Your task to perform on an android device: change your default location settings in chrome Image 0: 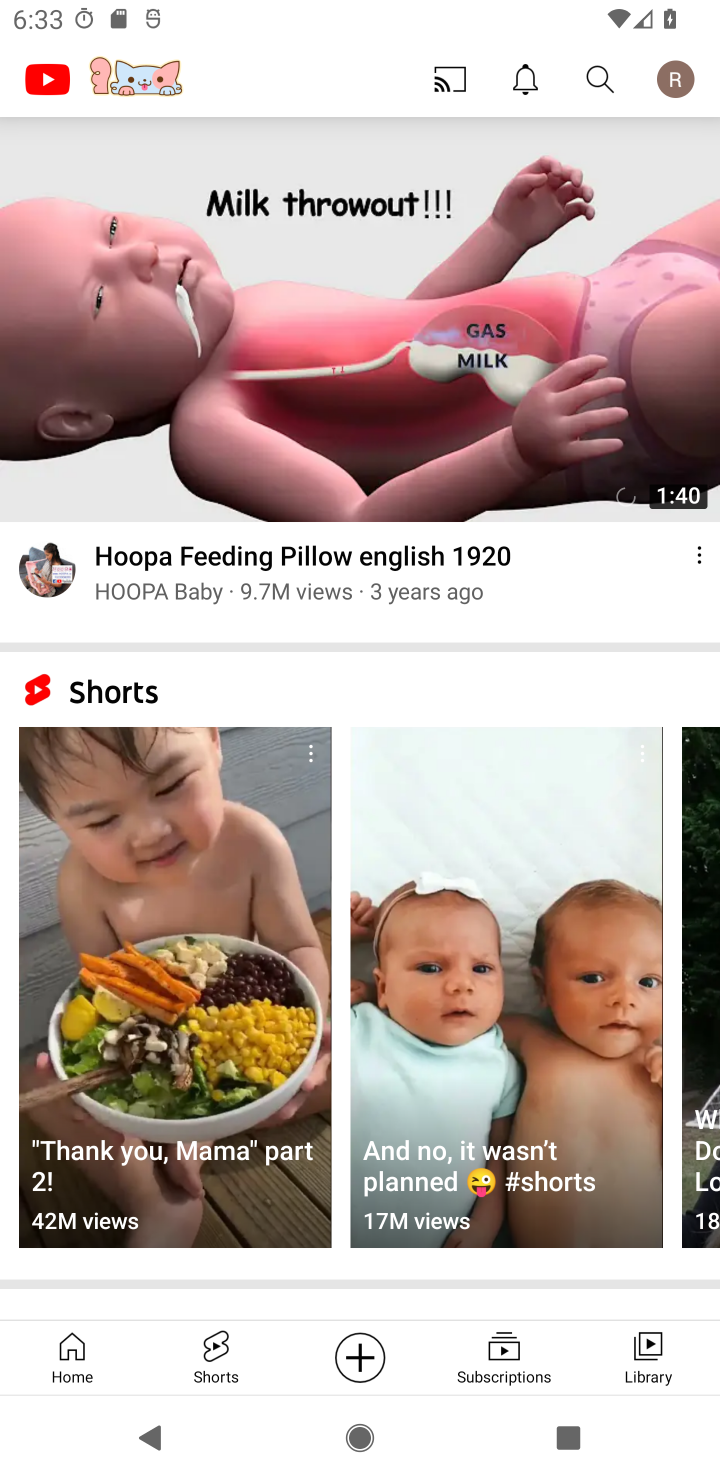
Step 0: press home button
Your task to perform on an android device: change your default location settings in chrome Image 1: 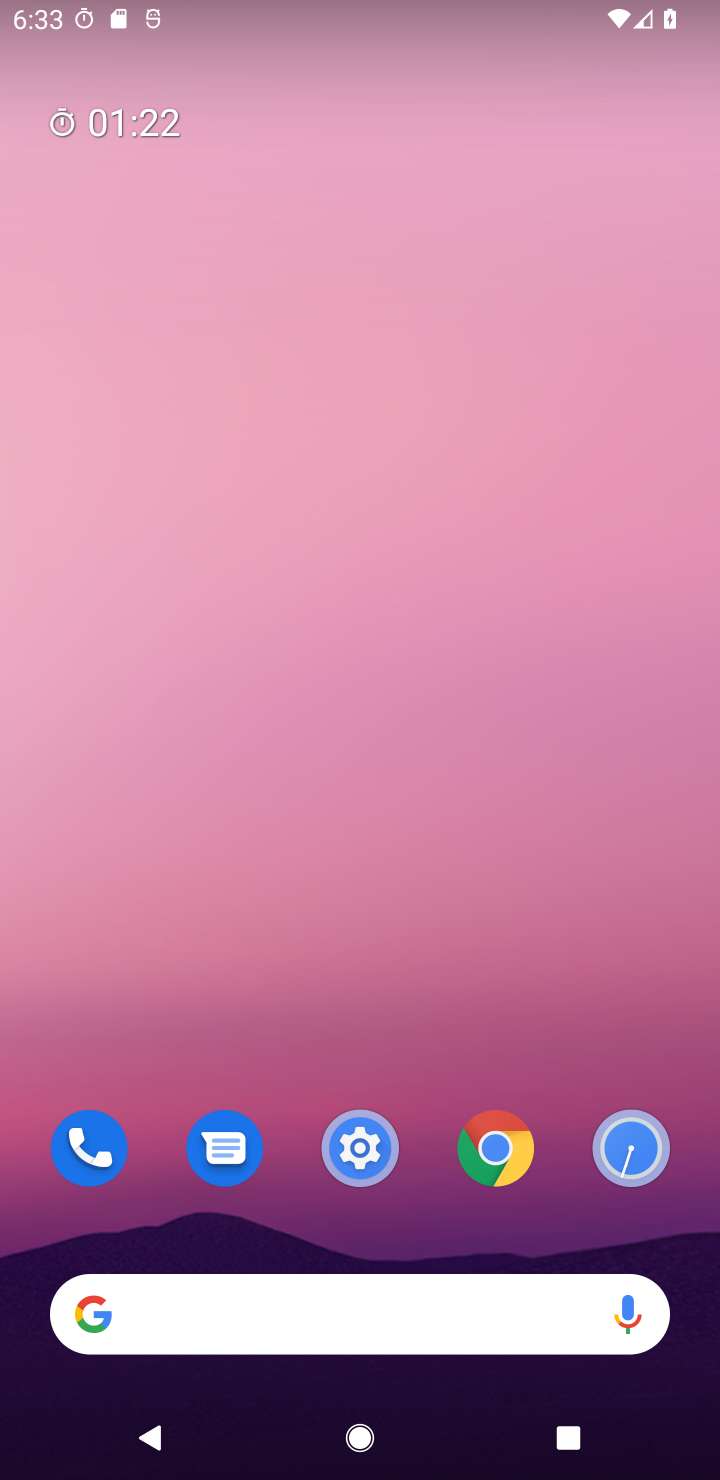
Step 1: click (486, 1188)
Your task to perform on an android device: change your default location settings in chrome Image 2: 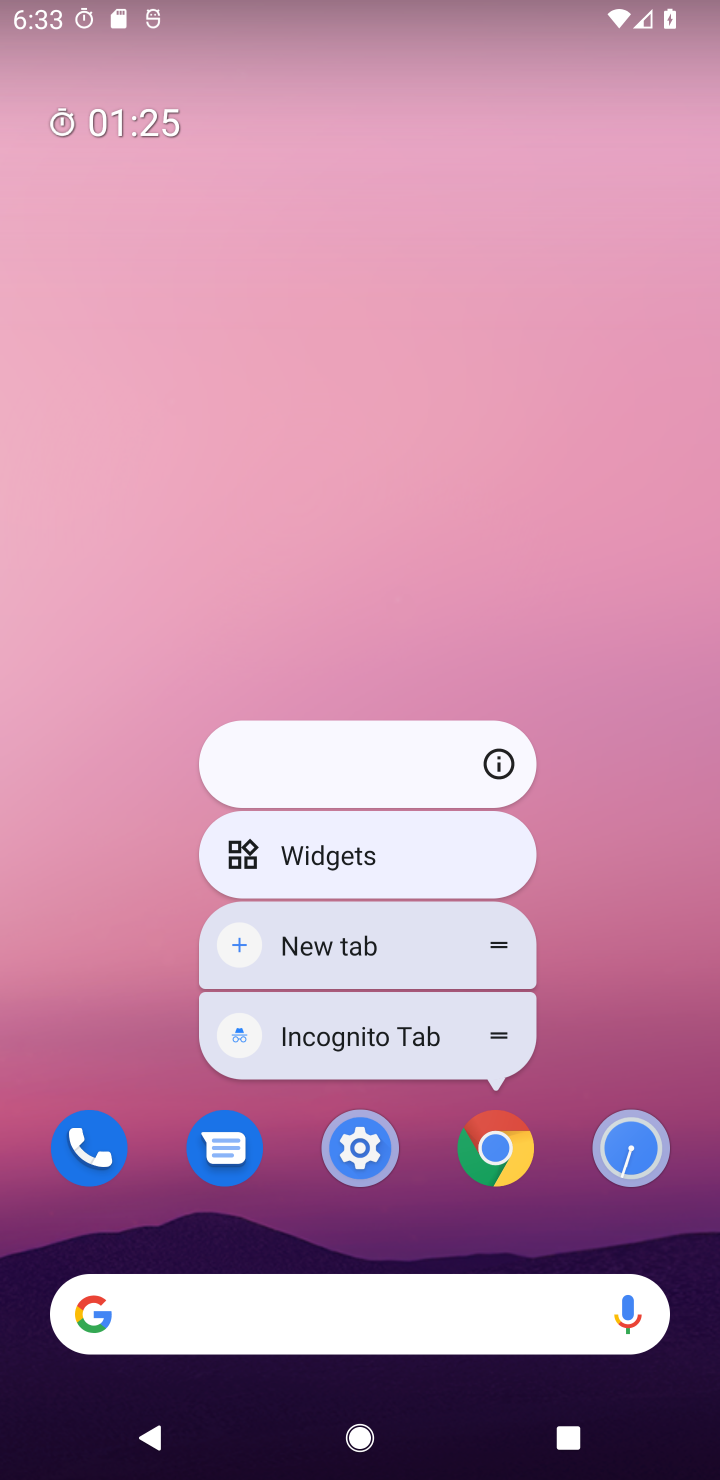
Step 2: click (502, 1147)
Your task to perform on an android device: change your default location settings in chrome Image 3: 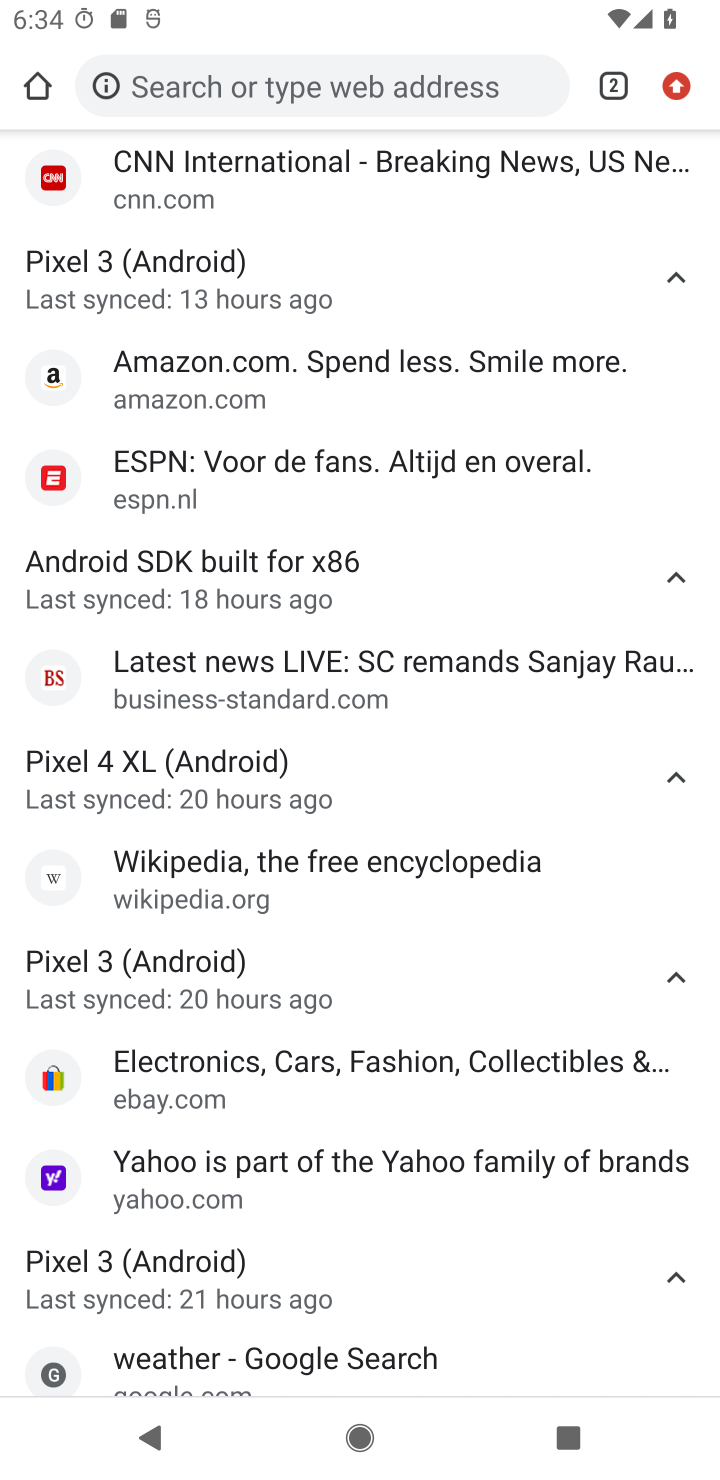
Step 3: click (676, 78)
Your task to perform on an android device: change your default location settings in chrome Image 4: 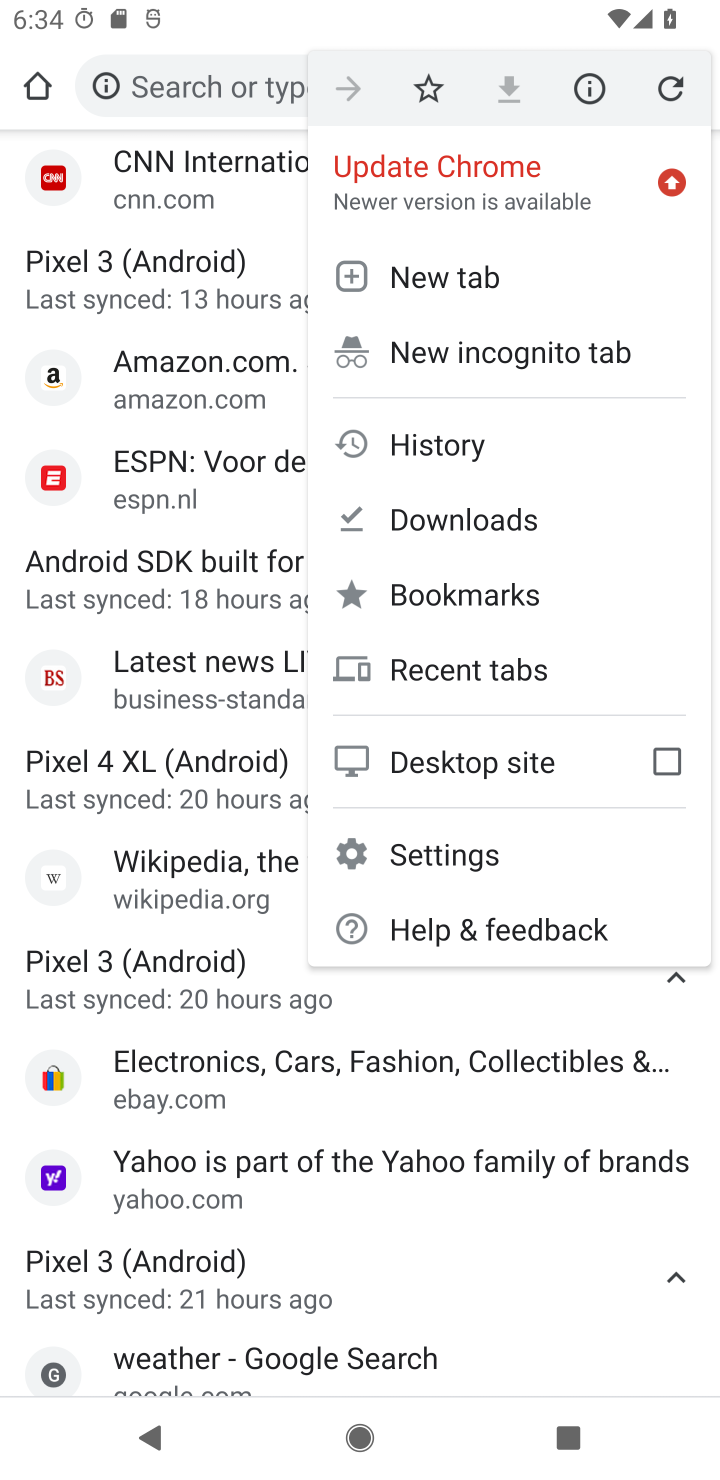
Step 4: click (476, 858)
Your task to perform on an android device: change your default location settings in chrome Image 5: 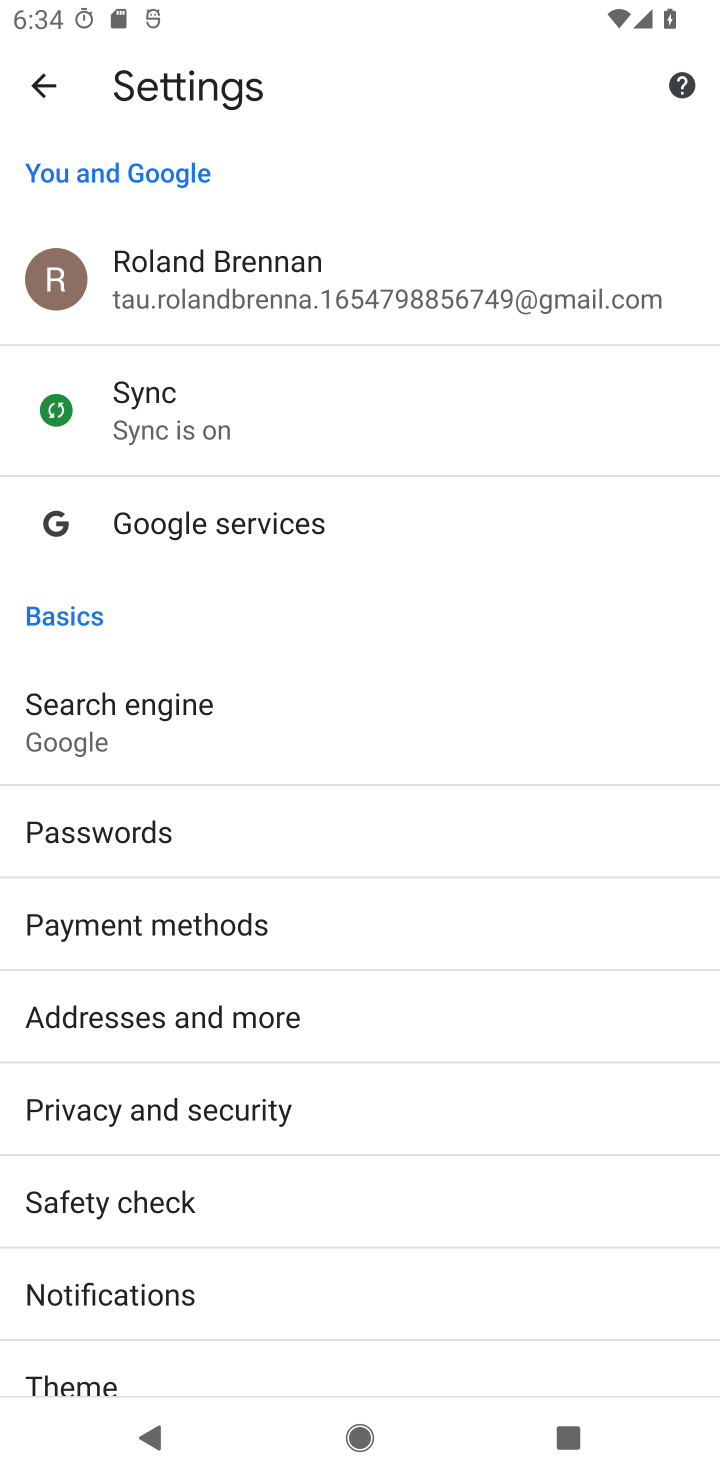
Step 5: drag from (194, 1258) to (259, 734)
Your task to perform on an android device: change your default location settings in chrome Image 6: 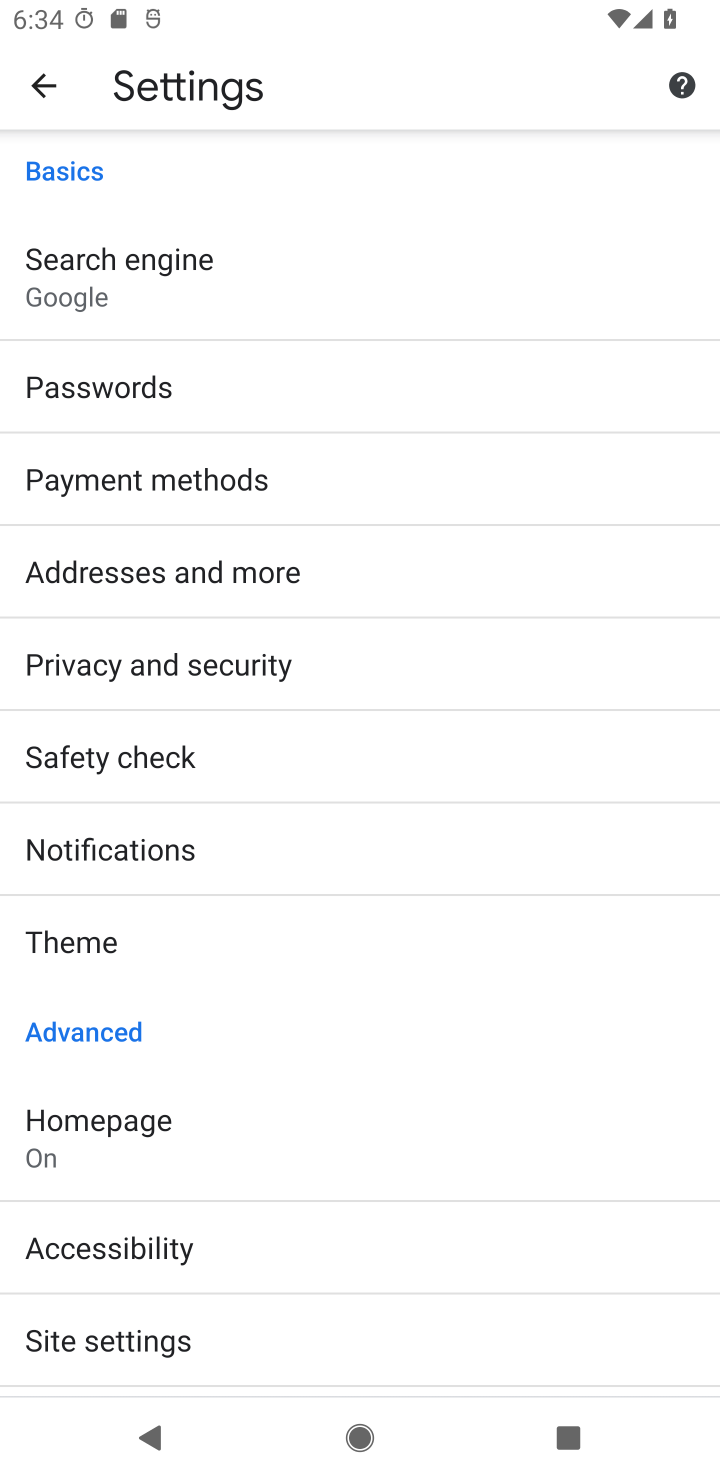
Step 6: drag from (214, 1299) to (227, 895)
Your task to perform on an android device: change your default location settings in chrome Image 7: 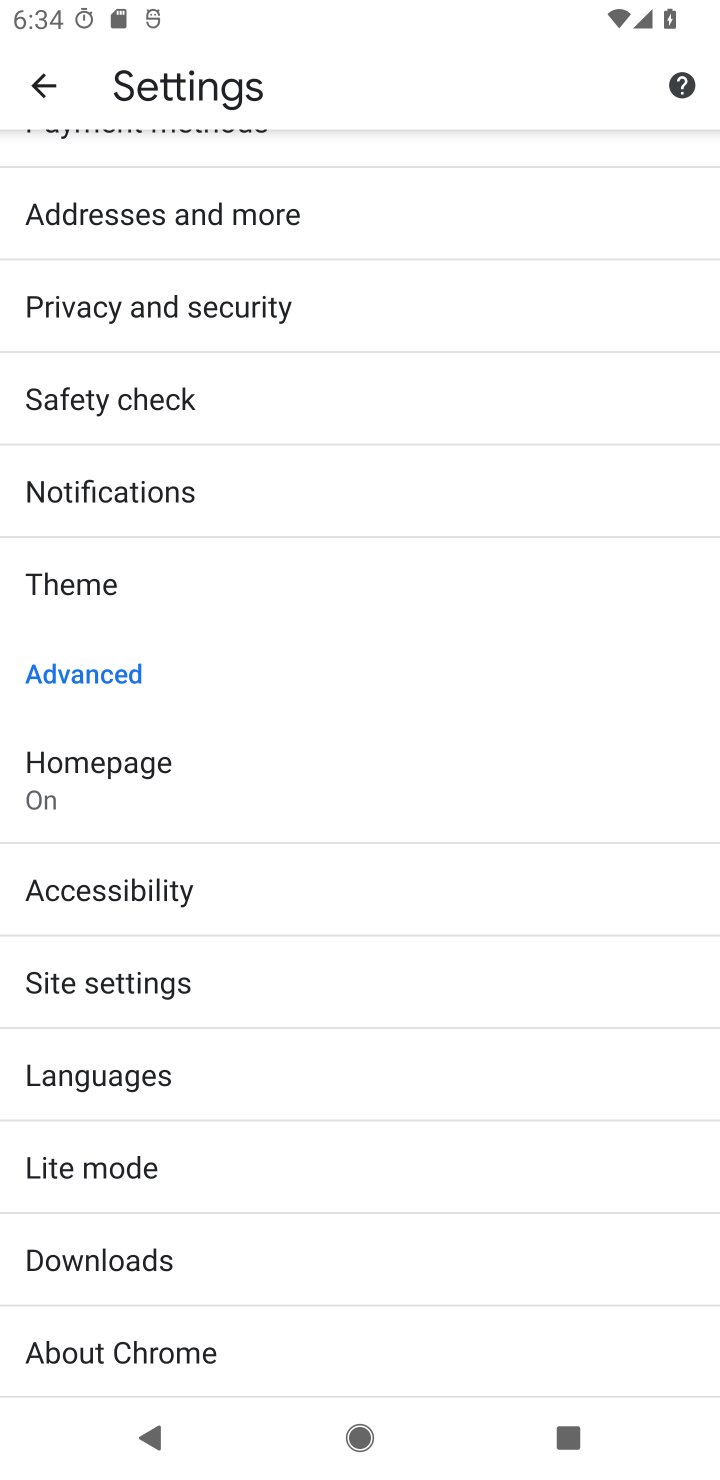
Step 7: click (115, 991)
Your task to perform on an android device: change your default location settings in chrome Image 8: 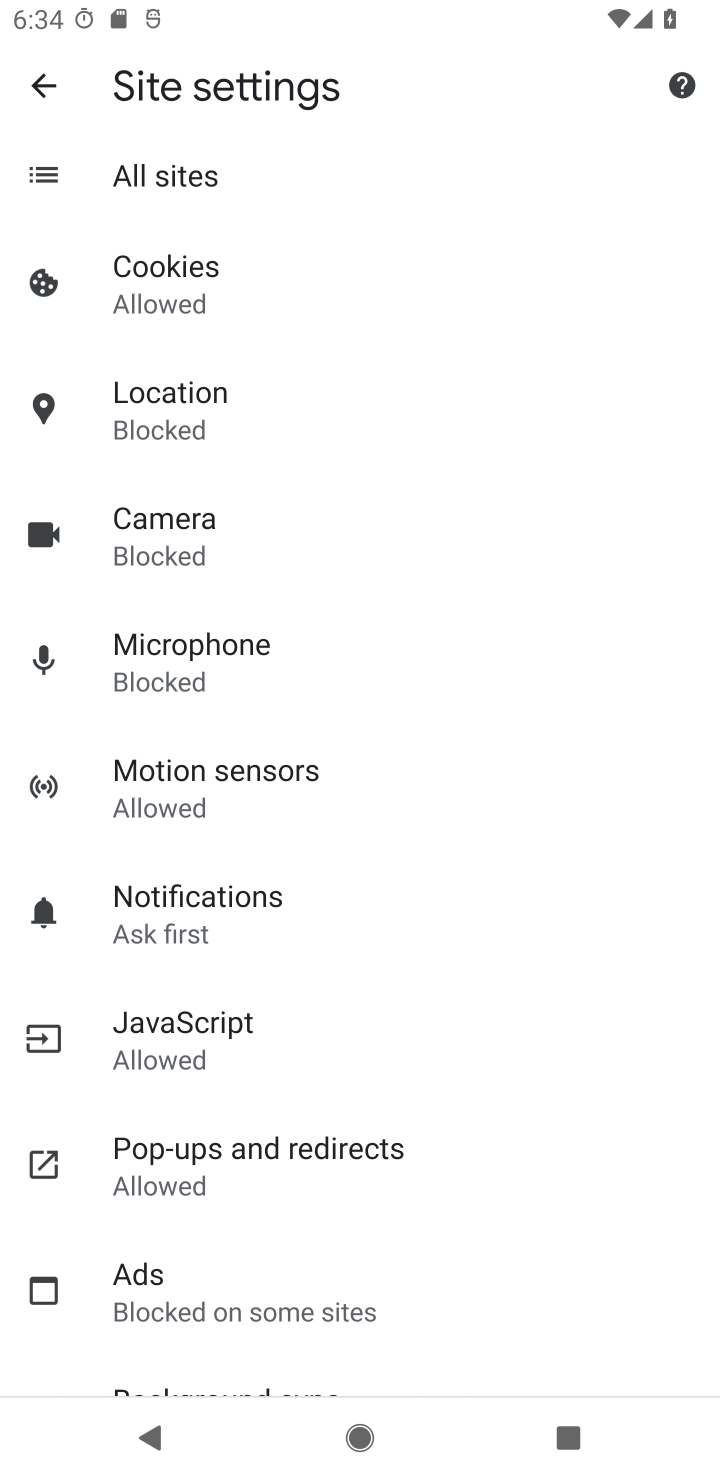
Step 8: click (174, 416)
Your task to perform on an android device: change your default location settings in chrome Image 9: 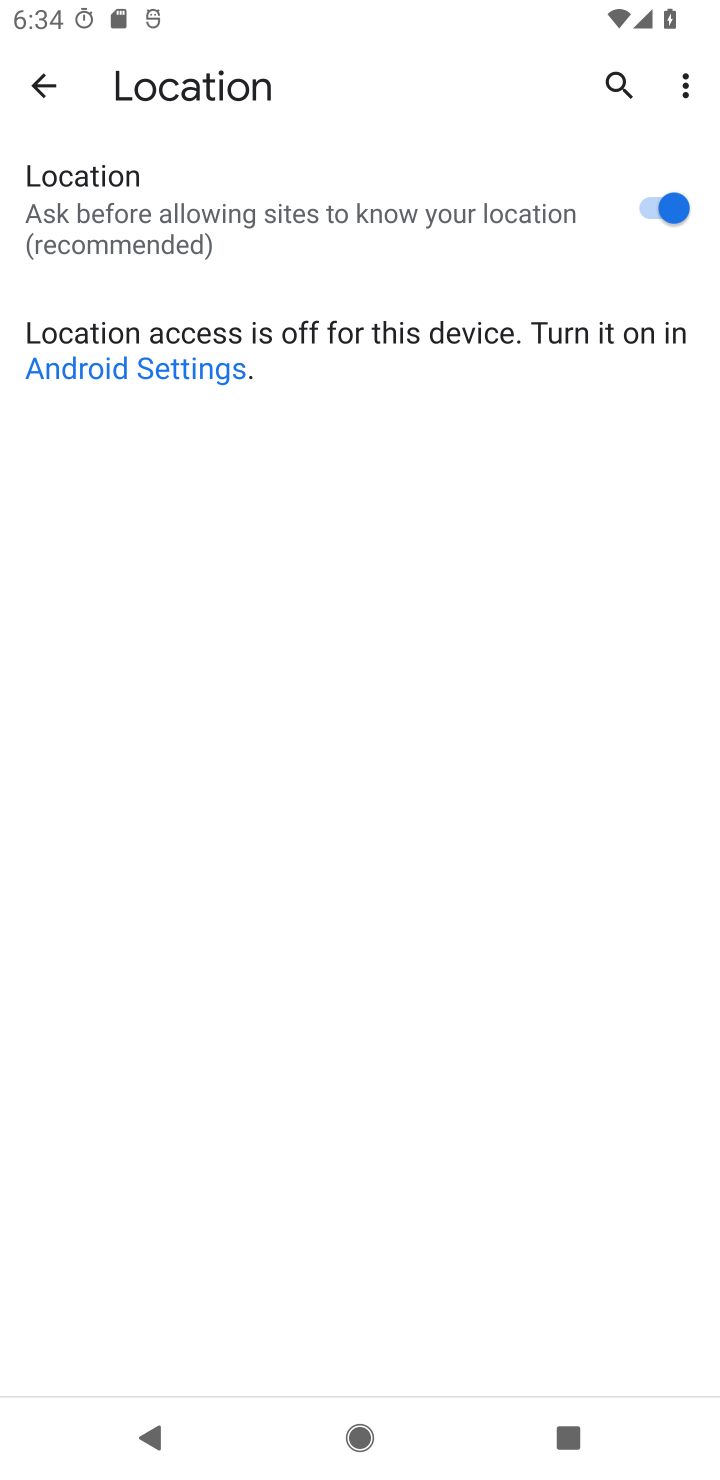
Step 9: click (620, 201)
Your task to perform on an android device: change your default location settings in chrome Image 10: 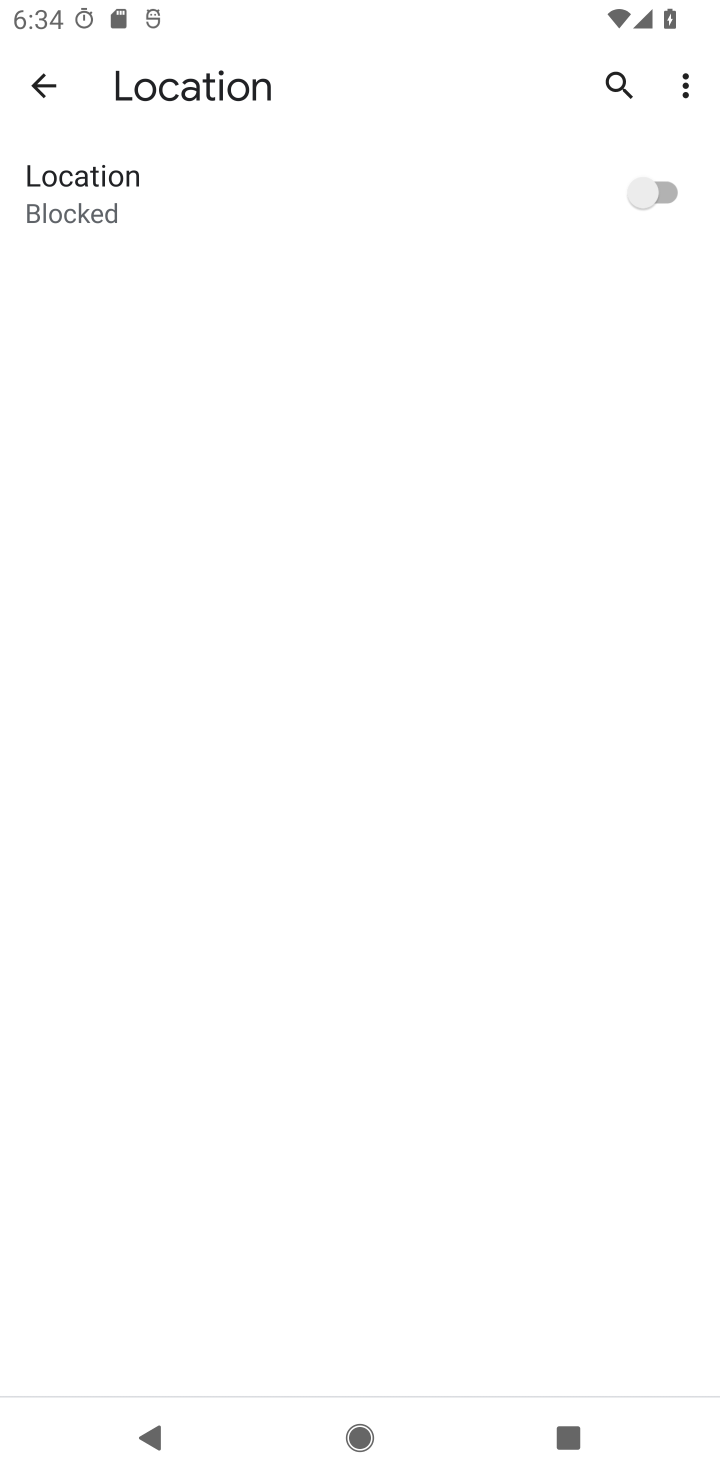
Step 10: task complete